Your task to perform on an android device: find snoozed emails in the gmail app Image 0: 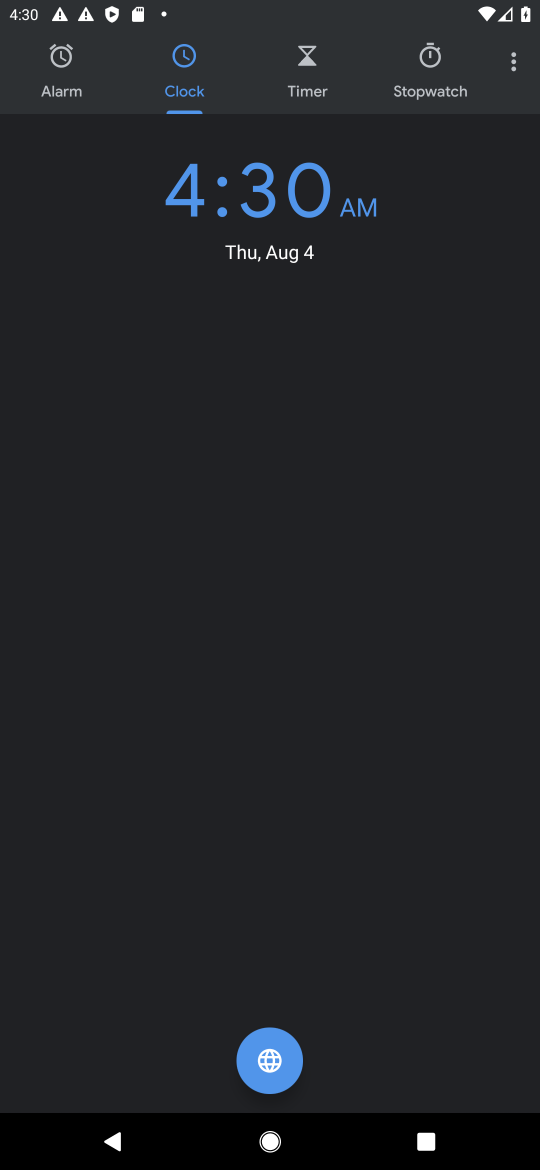
Step 0: press home button
Your task to perform on an android device: find snoozed emails in the gmail app Image 1: 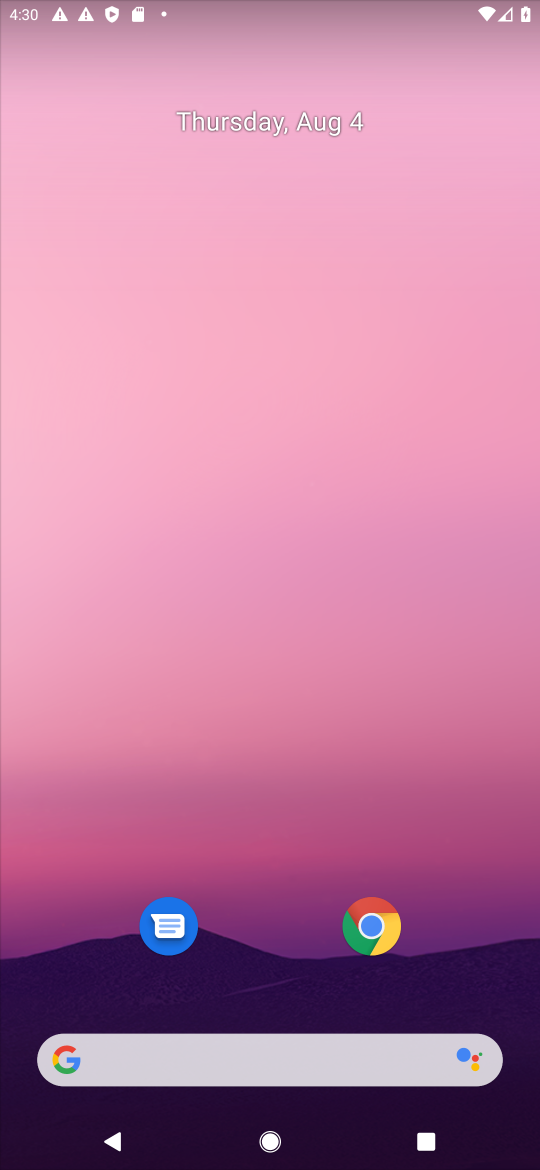
Step 1: drag from (270, 922) to (342, 75)
Your task to perform on an android device: find snoozed emails in the gmail app Image 2: 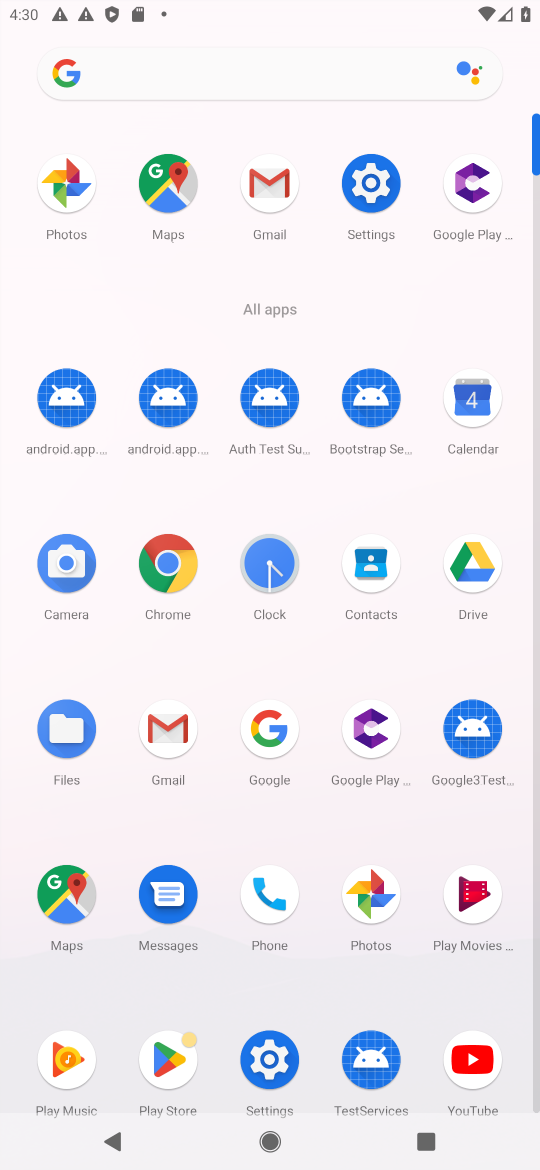
Step 2: click (274, 176)
Your task to perform on an android device: find snoozed emails in the gmail app Image 3: 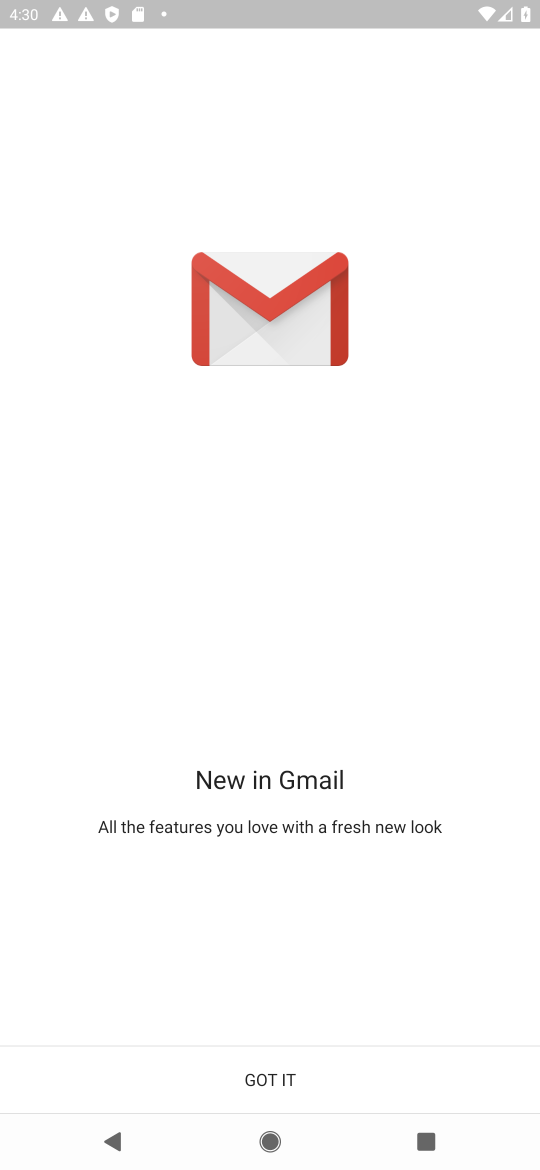
Step 3: click (278, 1088)
Your task to perform on an android device: find snoozed emails in the gmail app Image 4: 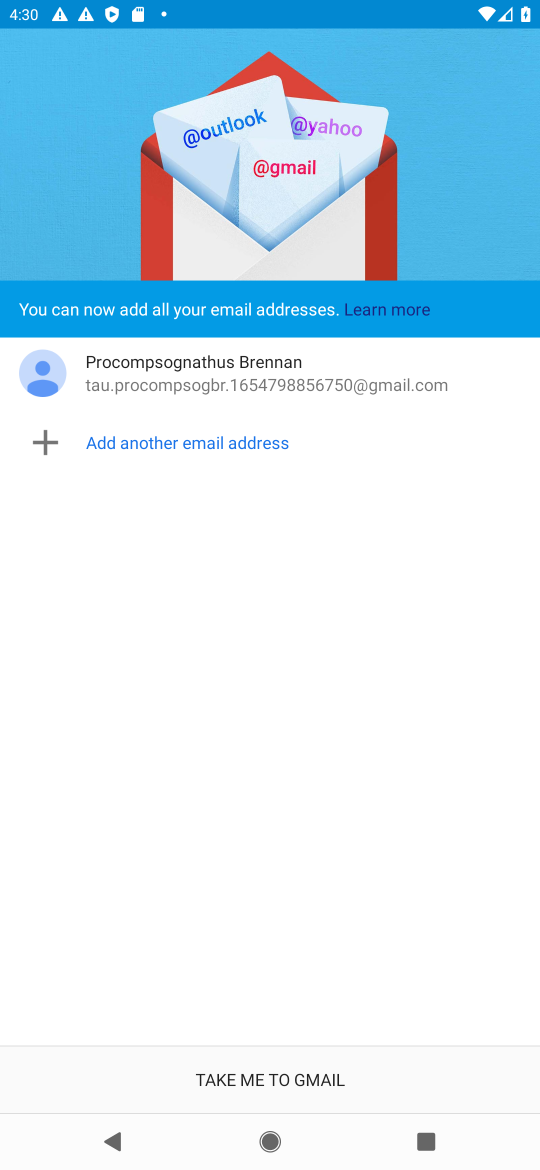
Step 4: click (264, 1066)
Your task to perform on an android device: find snoozed emails in the gmail app Image 5: 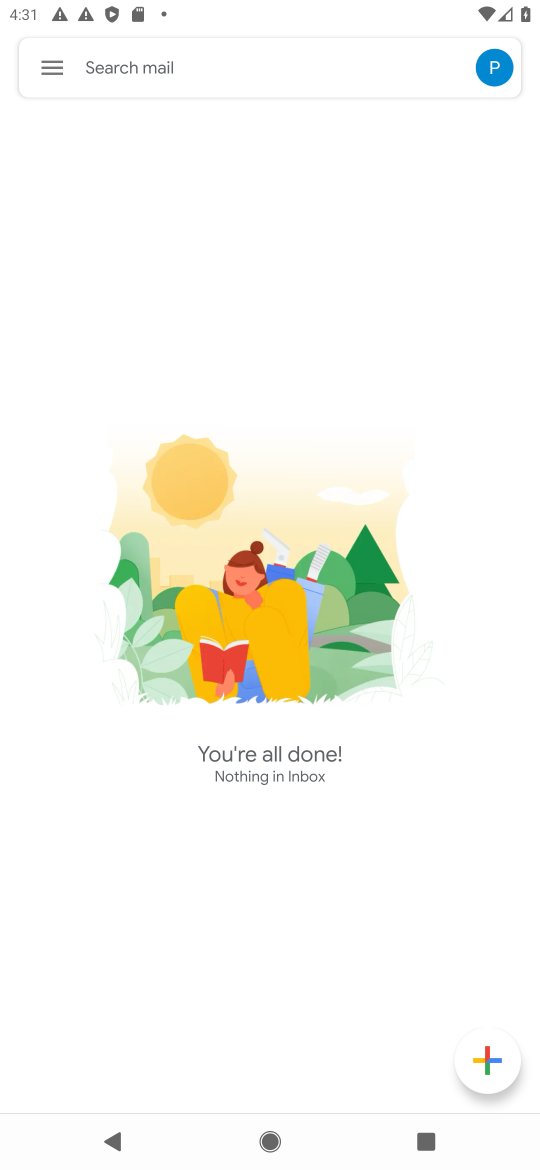
Step 5: click (59, 68)
Your task to perform on an android device: find snoozed emails in the gmail app Image 6: 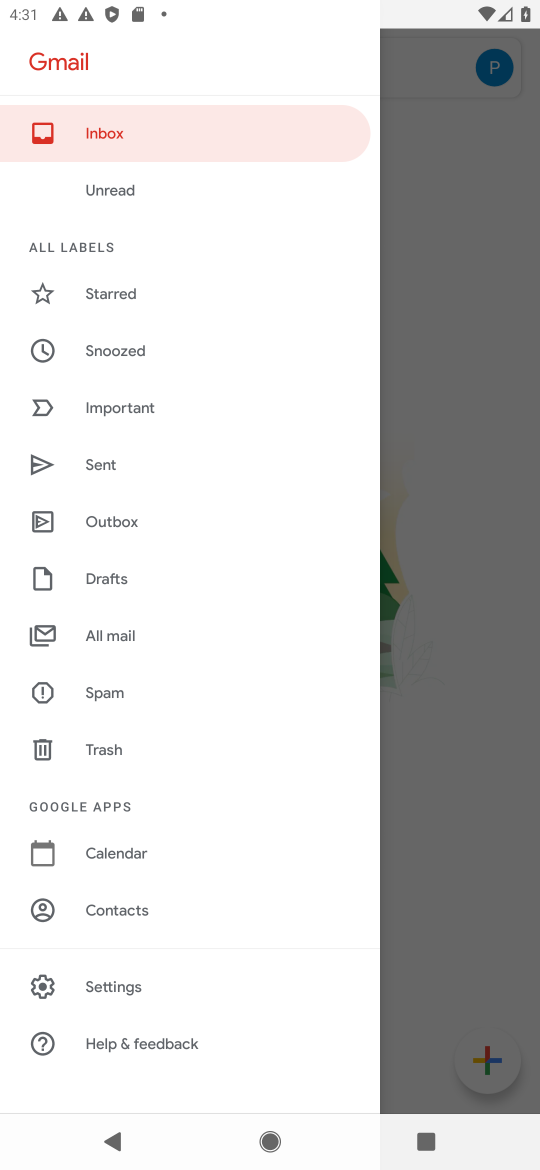
Step 6: click (130, 352)
Your task to perform on an android device: find snoozed emails in the gmail app Image 7: 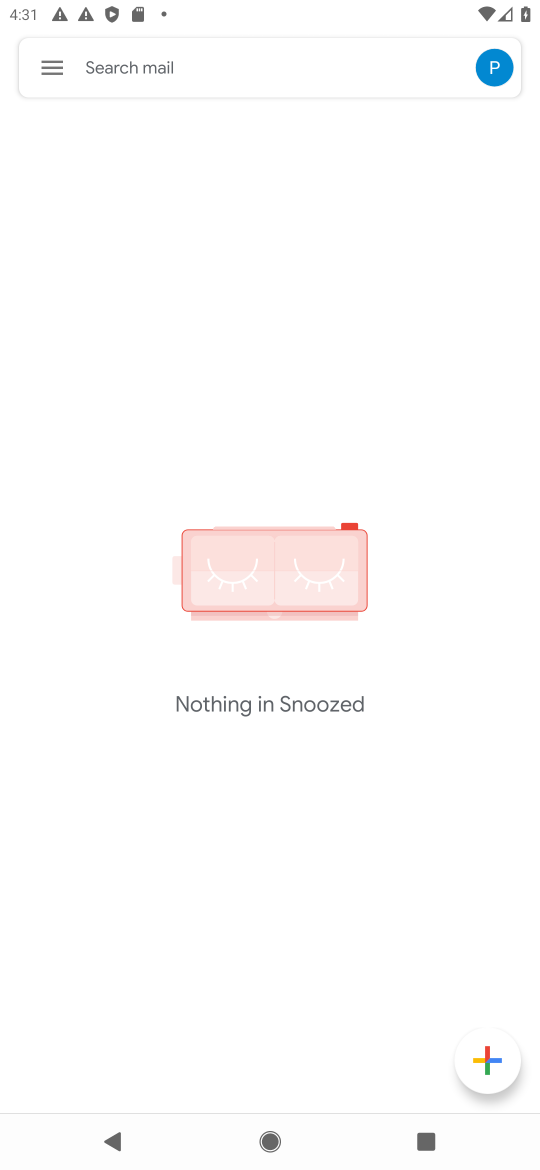
Step 7: task complete